Your task to perform on an android device: move a message to another label in the gmail app Image 0: 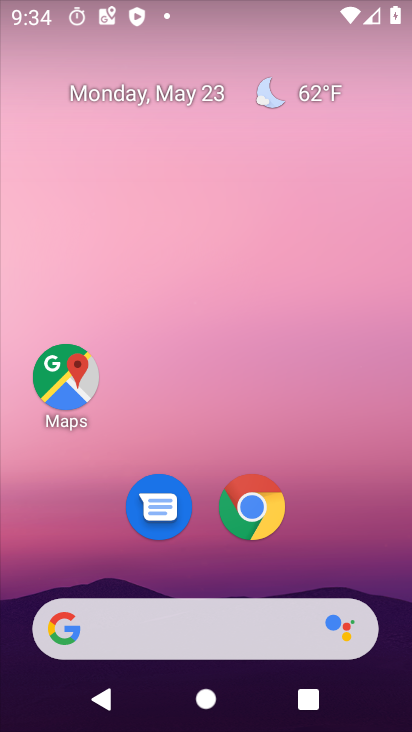
Step 0: drag from (335, 555) to (237, 175)
Your task to perform on an android device: move a message to another label in the gmail app Image 1: 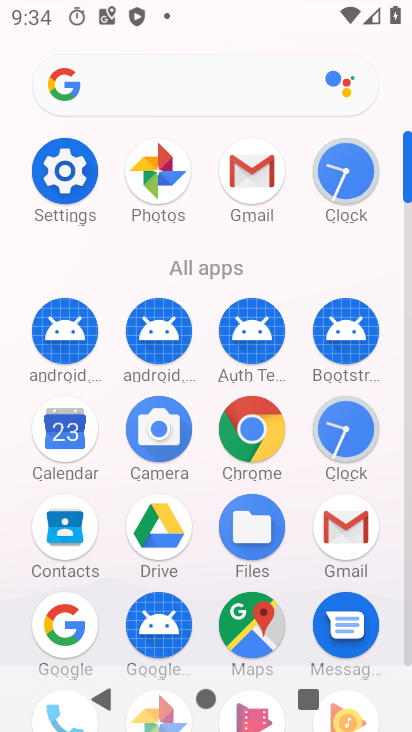
Step 1: click (253, 166)
Your task to perform on an android device: move a message to another label in the gmail app Image 2: 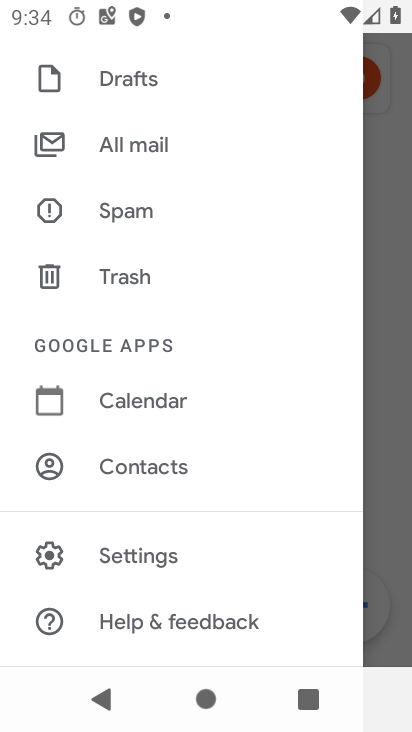
Step 2: drag from (218, 365) to (254, 438)
Your task to perform on an android device: move a message to another label in the gmail app Image 3: 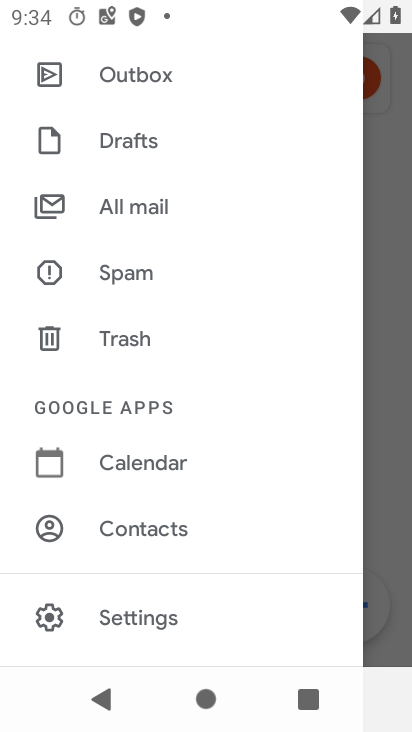
Step 3: drag from (142, 166) to (189, 527)
Your task to perform on an android device: move a message to another label in the gmail app Image 4: 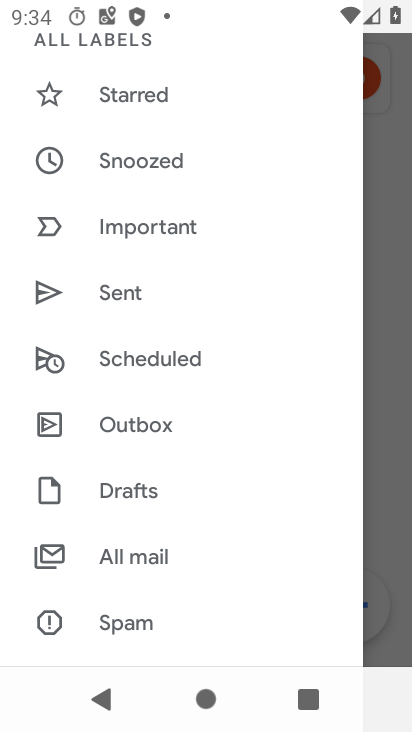
Step 4: drag from (150, 277) to (191, 456)
Your task to perform on an android device: move a message to another label in the gmail app Image 5: 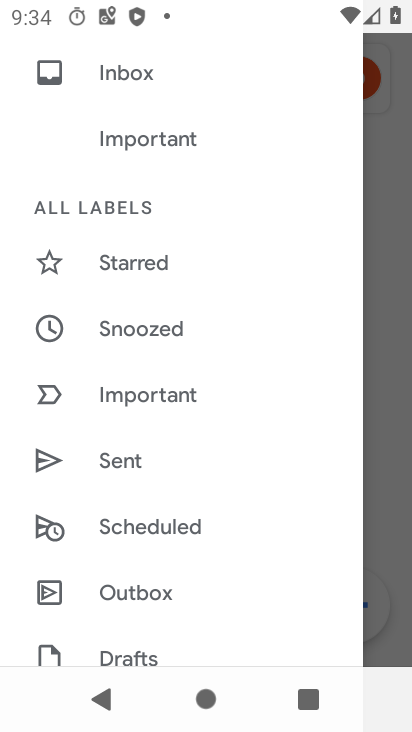
Step 5: click (136, 75)
Your task to perform on an android device: move a message to another label in the gmail app Image 6: 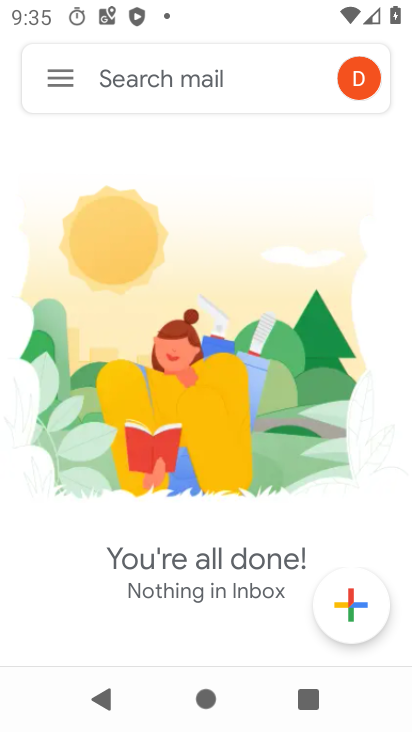
Step 6: click (70, 76)
Your task to perform on an android device: move a message to another label in the gmail app Image 7: 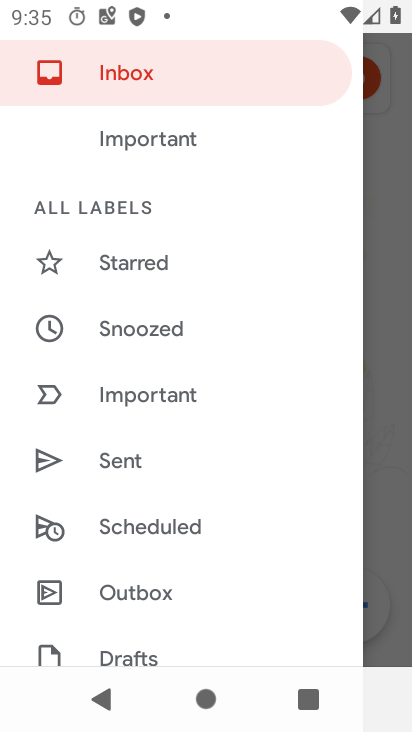
Step 7: click (161, 374)
Your task to perform on an android device: move a message to another label in the gmail app Image 8: 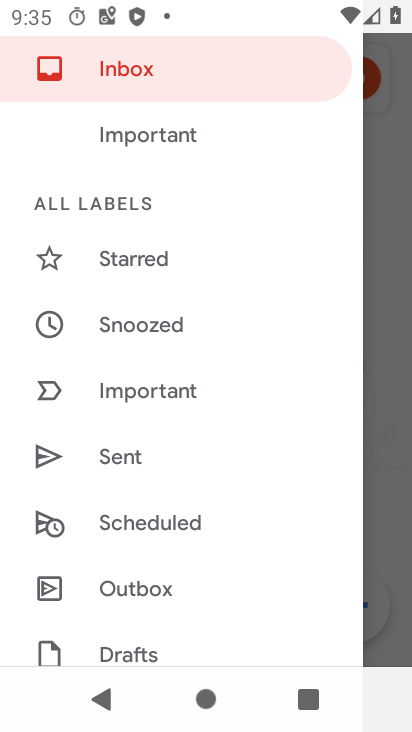
Step 8: drag from (152, 498) to (178, 422)
Your task to perform on an android device: move a message to another label in the gmail app Image 9: 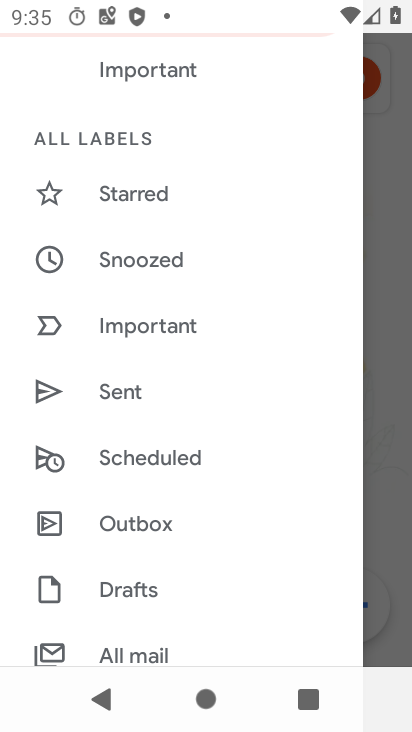
Step 9: drag from (143, 488) to (182, 408)
Your task to perform on an android device: move a message to another label in the gmail app Image 10: 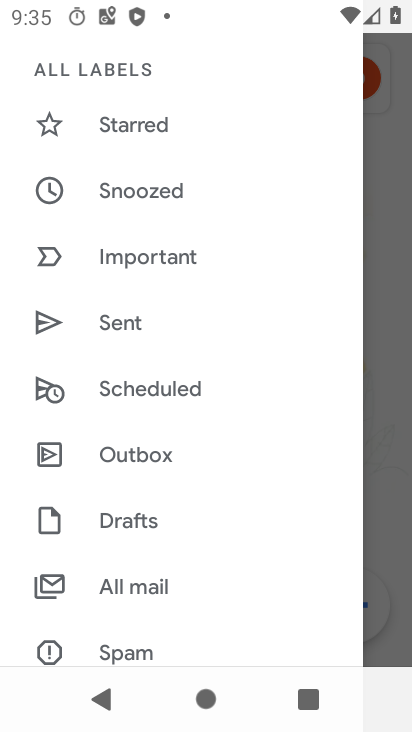
Step 10: click (142, 581)
Your task to perform on an android device: move a message to another label in the gmail app Image 11: 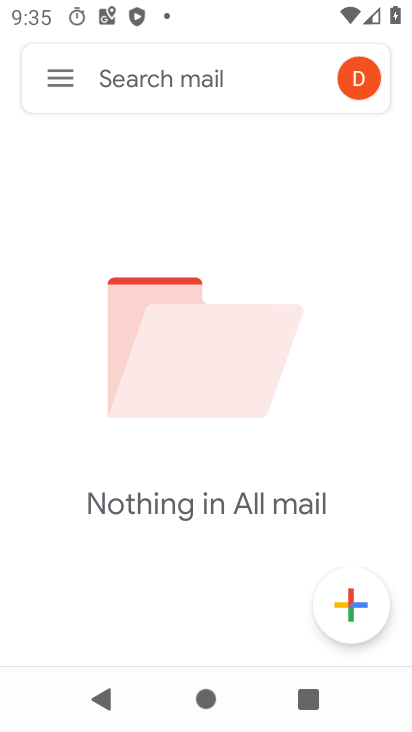
Step 11: task complete